Your task to perform on an android device: Search for the best books on Goodreads Image 0: 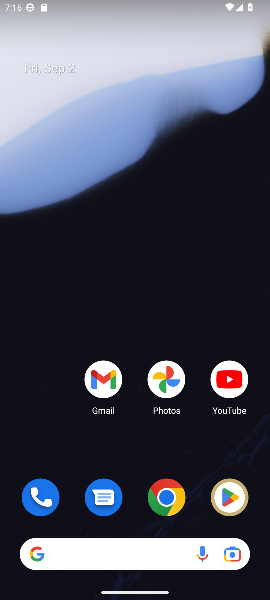
Step 0: drag from (151, 6) to (89, 0)
Your task to perform on an android device: Search for the best books on Goodreads Image 1: 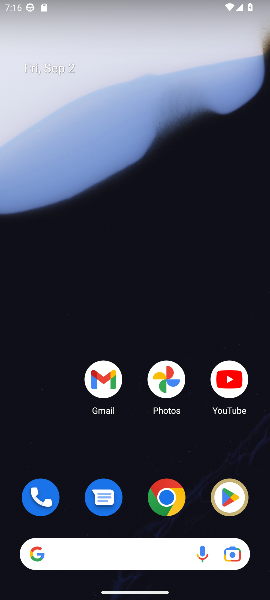
Step 1: drag from (121, 445) to (7, 32)
Your task to perform on an android device: Search for the best books on Goodreads Image 2: 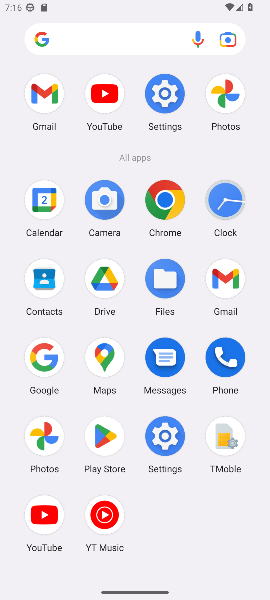
Step 2: click (50, 361)
Your task to perform on an android device: Search for the best books on Goodreads Image 3: 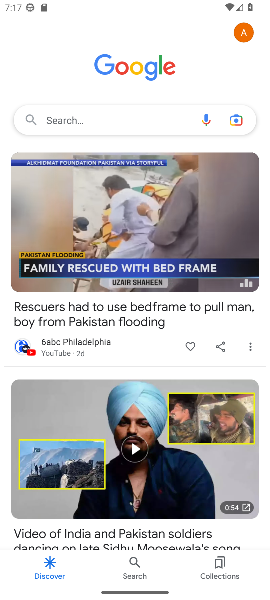
Step 3: click (85, 118)
Your task to perform on an android device: Search for the best books on Goodreads Image 4: 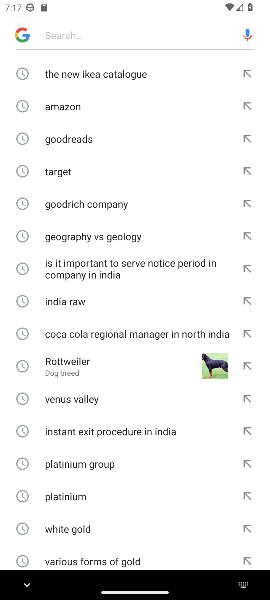
Step 4: type "the best books on Goodreads"
Your task to perform on an android device: Search for the best books on Goodreads Image 5: 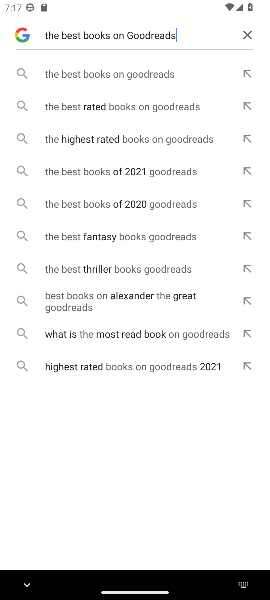
Step 5: click (122, 77)
Your task to perform on an android device: Search for the best books on Goodreads Image 6: 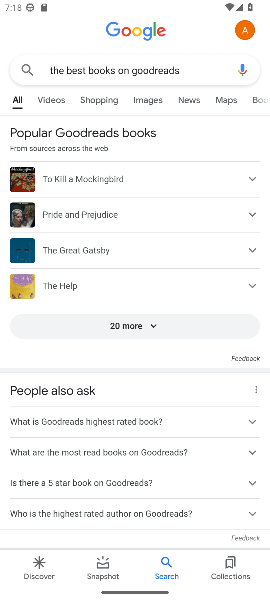
Step 6: task complete